Your task to perform on an android device: turn on the 12-hour format for clock Image 0: 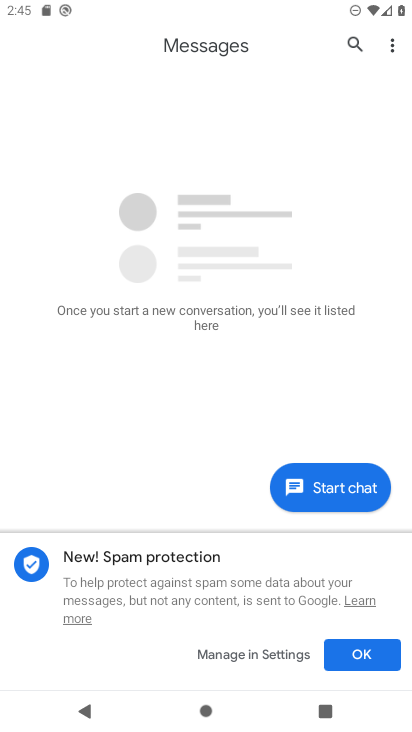
Step 0: press home button
Your task to perform on an android device: turn on the 12-hour format for clock Image 1: 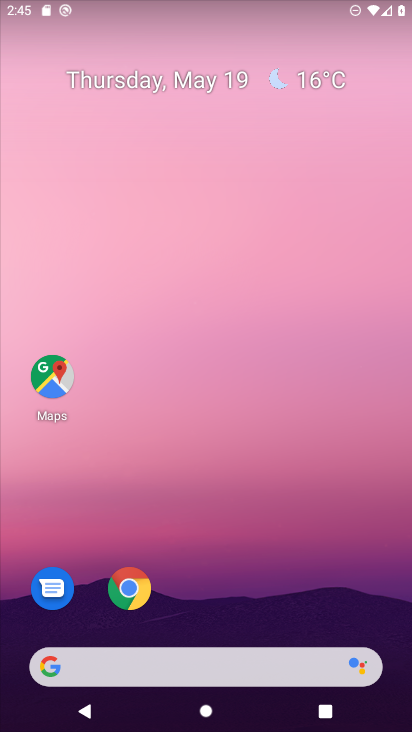
Step 1: drag from (336, 629) to (328, 0)
Your task to perform on an android device: turn on the 12-hour format for clock Image 2: 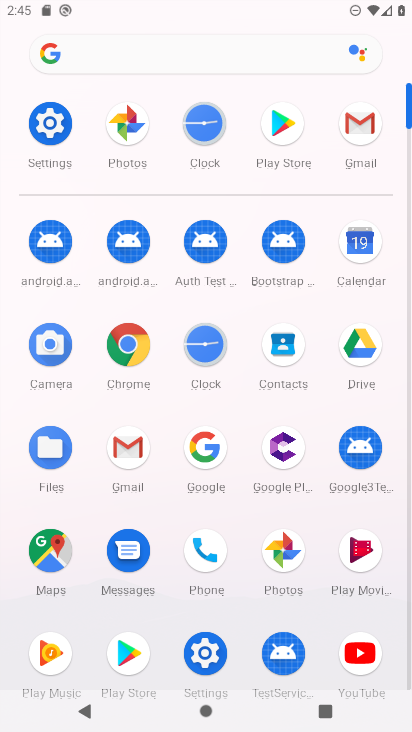
Step 2: click (197, 124)
Your task to perform on an android device: turn on the 12-hour format for clock Image 3: 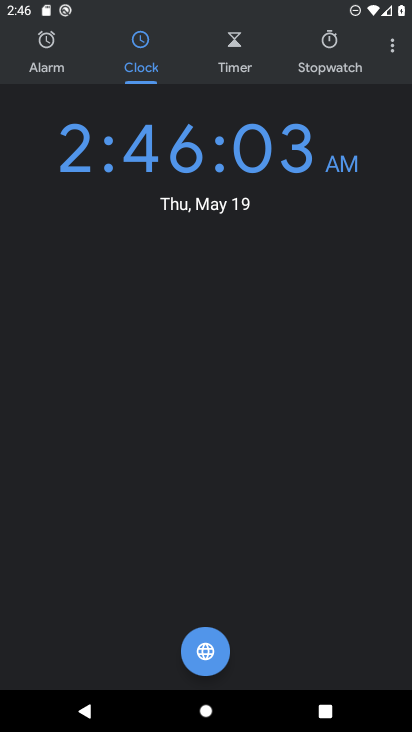
Step 3: click (391, 48)
Your task to perform on an android device: turn on the 12-hour format for clock Image 4: 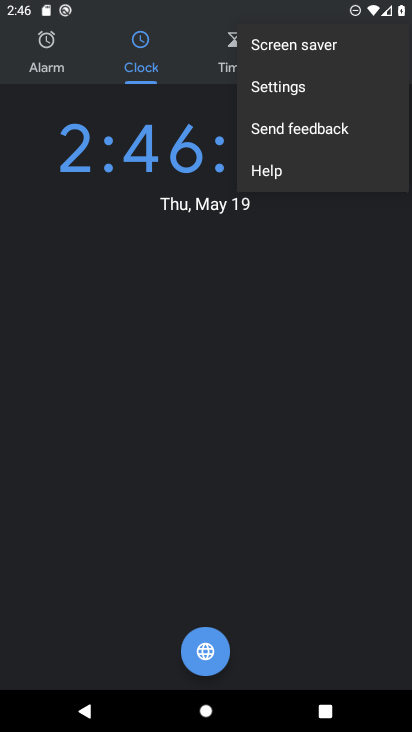
Step 4: click (268, 91)
Your task to perform on an android device: turn on the 12-hour format for clock Image 5: 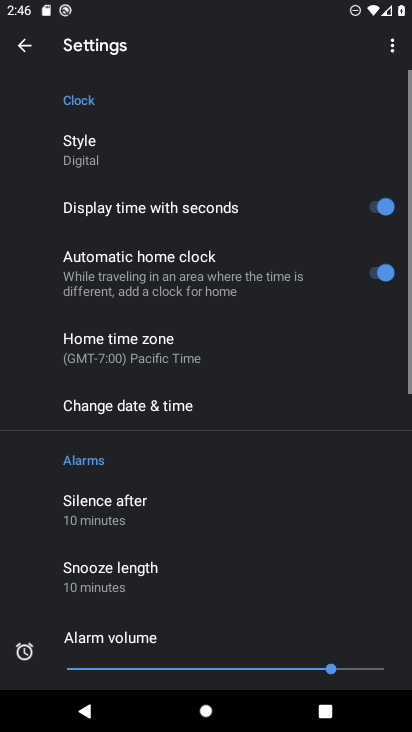
Step 5: click (144, 413)
Your task to perform on an android device: turn on the 12-hour format for clock Image 6: 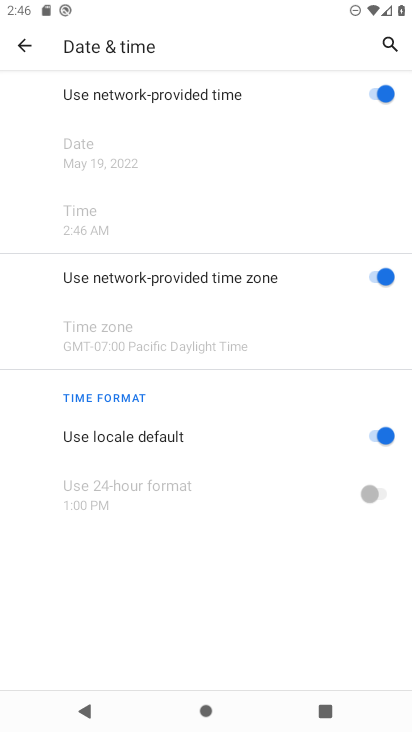
Step 6: task complete